Your task to perform on an android device: check storage Image 0: 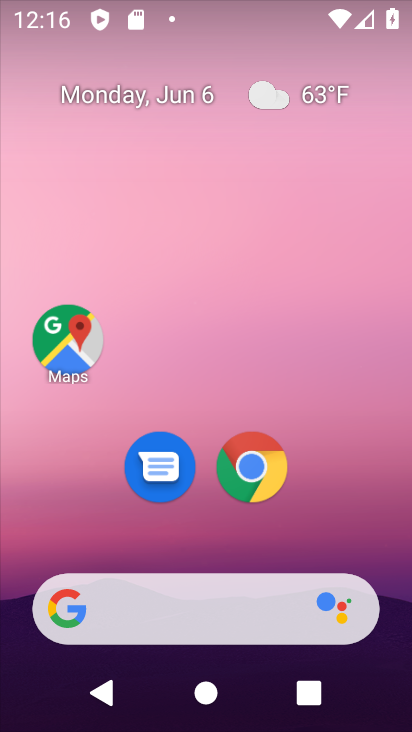
Step 0: drag from (392, 604) to (222, 87)
Your task to perform on an android device: check storage Image 1: 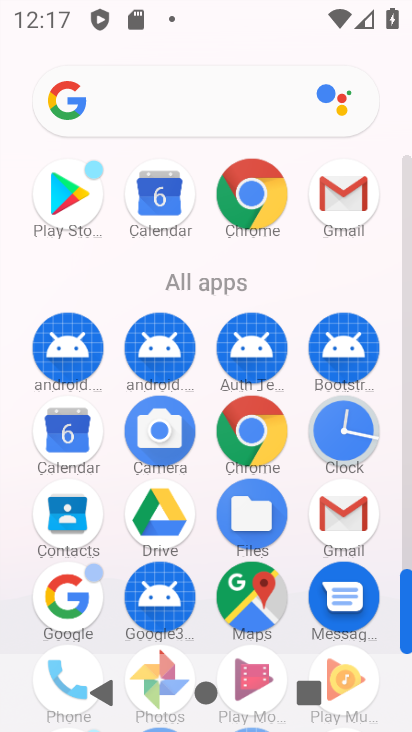
Step 1: drag from (297, 622) to (278, 88)
Your task to perform on an android device: check storage Image 2: 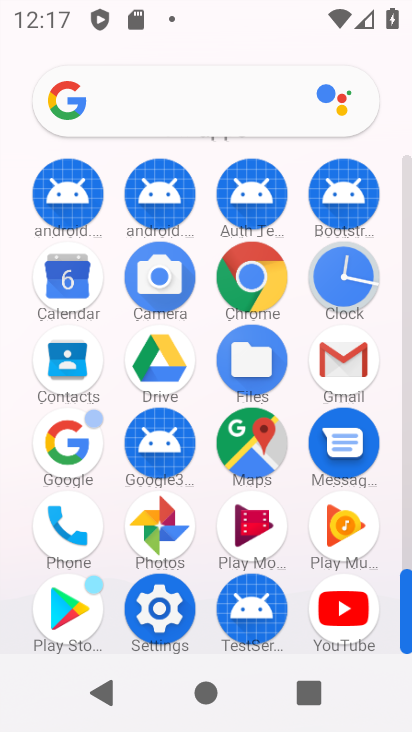
Step 2: click (170, 595)
Your task to perform on an android device: check storage Image 3: 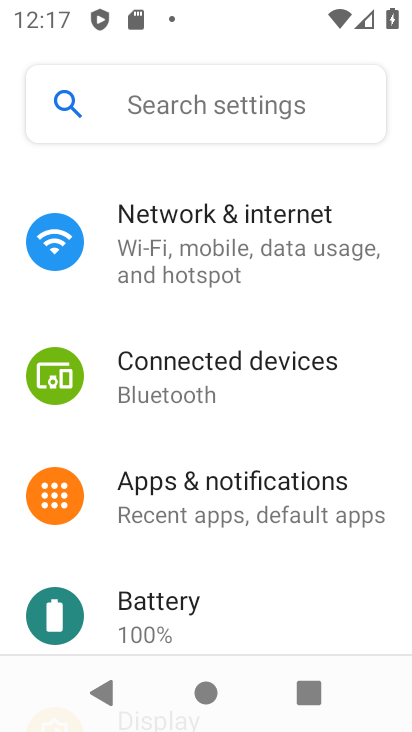
Step 3: drag from (170, 595) to (213, 296)
Your task to perform on an android device: check storage Image 4: 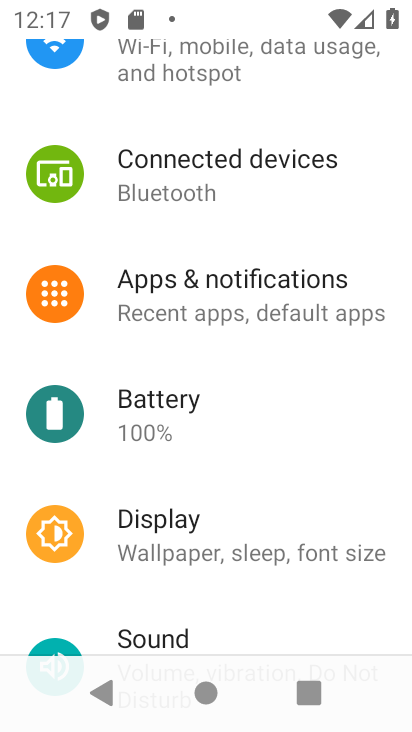
Step 4: click (186, 176)
Your task to perform on an android device: check storage Image 5: 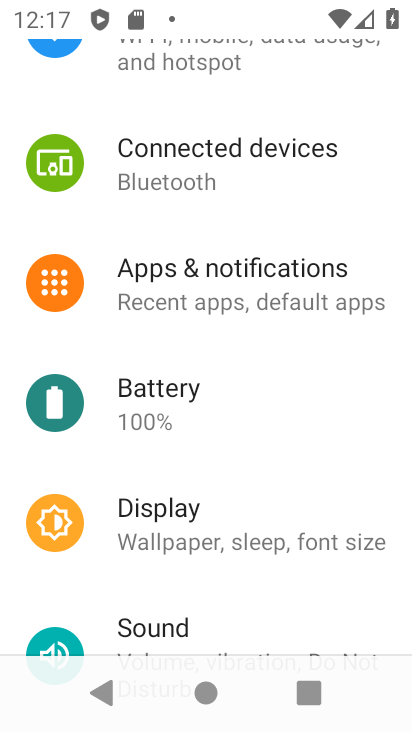
Step 5: drag from (199, 621) to (256, 117)
Your task to perform on an android device: check storage Image 6: 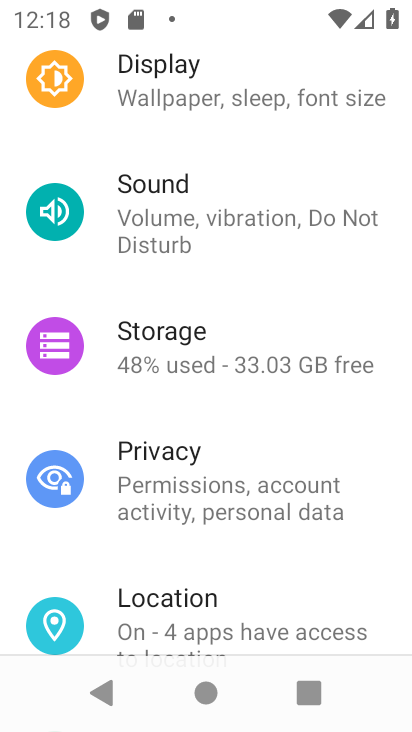
Step 6: click (178, 360)
Your task to perform on an android device: check storage Image 7: 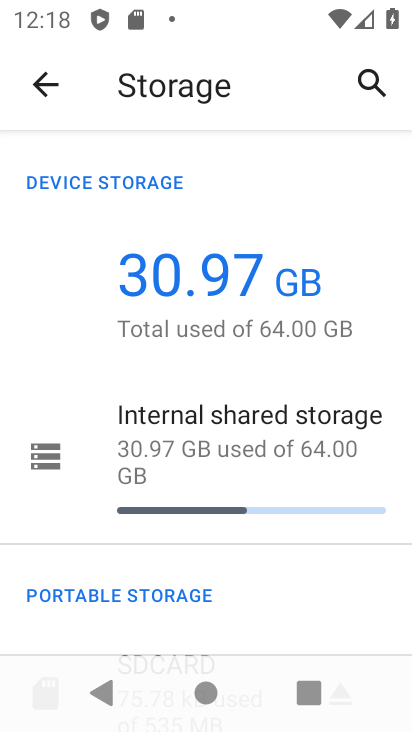
Step 7: click (177, 436)
Your task to perform on an android device: check storage Image 8: 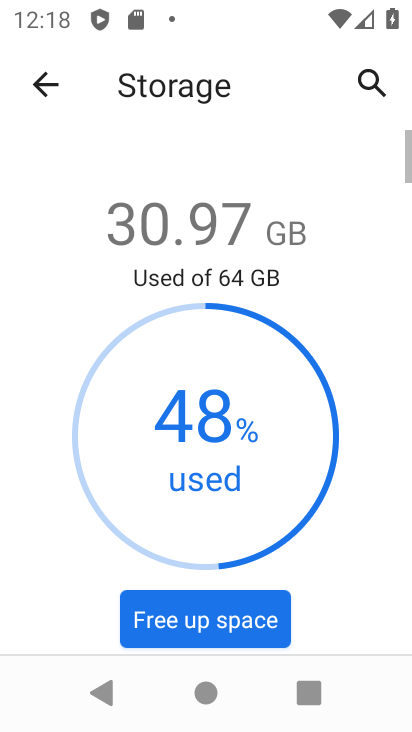
Step 8: task complete